Your task to perform on an android device: Search for the best rated mattress topper on Target. Image 0: 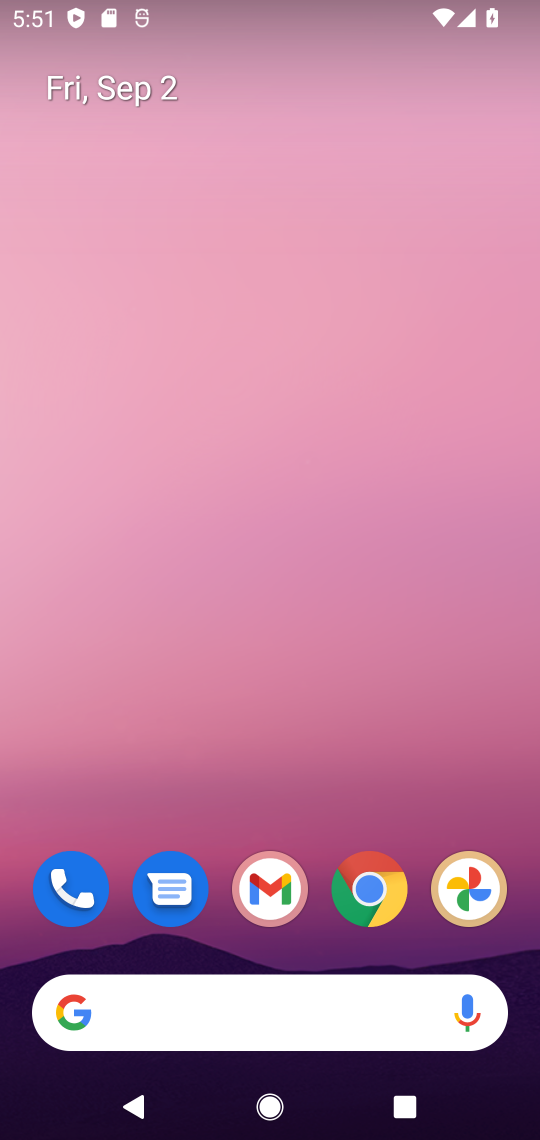
Step 0: click (354, 997)
Your task to perform on an android device: Search for the best rated mattress topper on Target. Image 1: 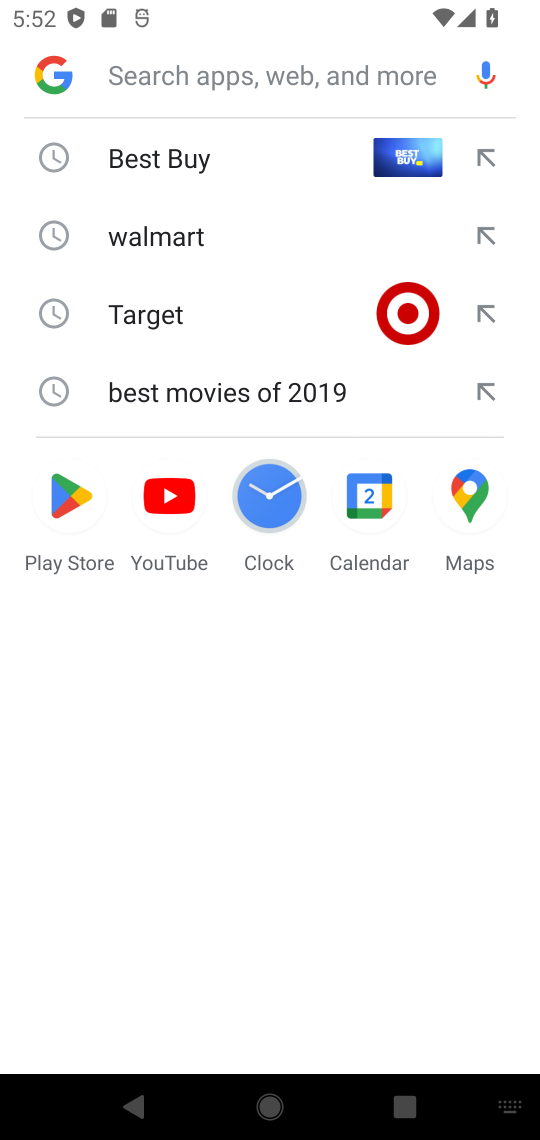
Step 1: click (205, 300)
Your task to perform on an android device: Search for the best rated mattress topper on Target. Image 2: 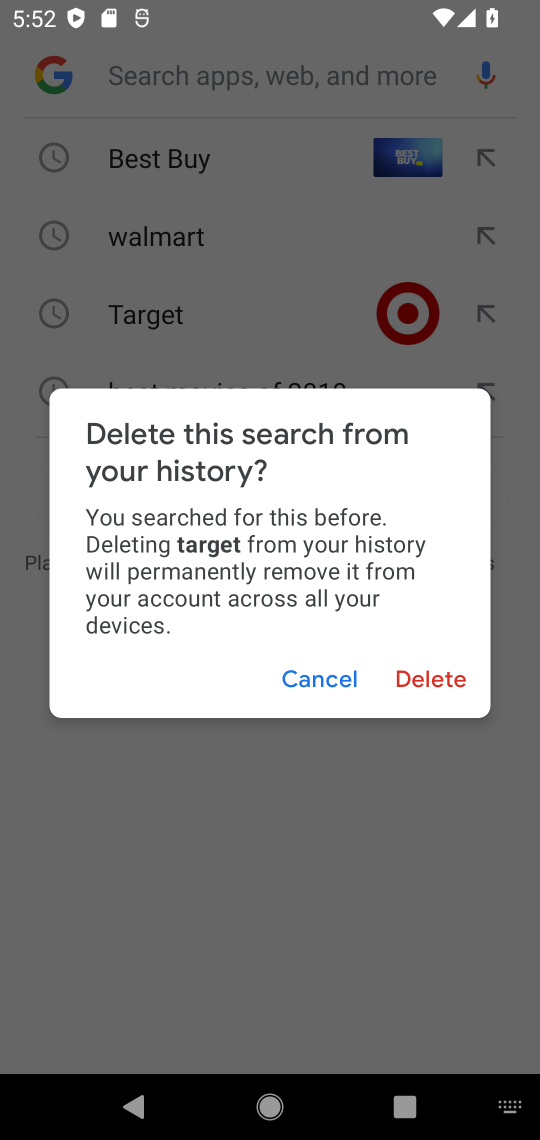
Step 2: click (308, 670)
Your task to perform on an android device: Search for the best rated mattress topper on Target. Image 3: 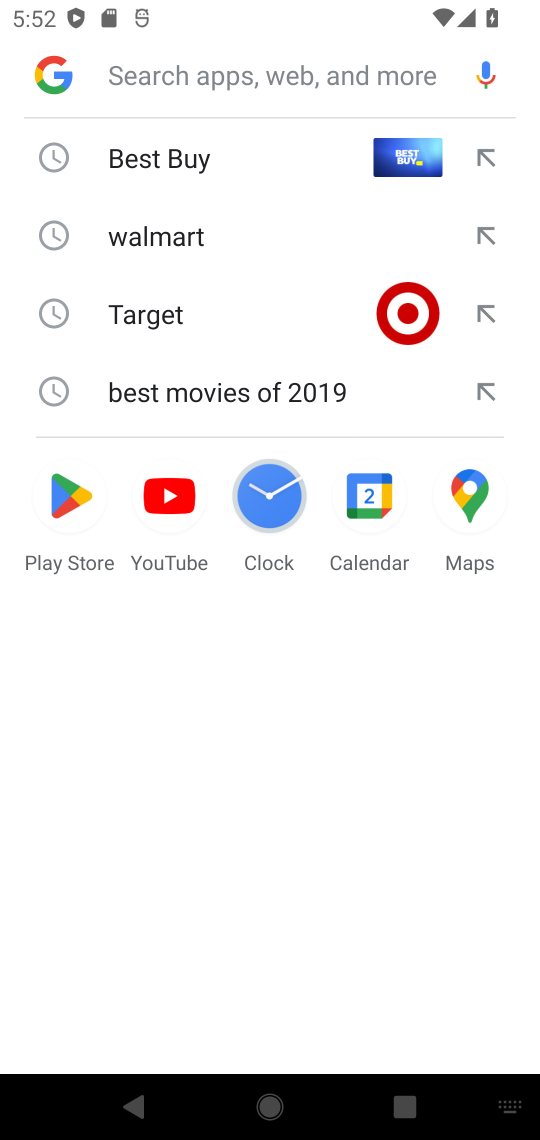
Step 3: click (133, 309)
Your task to perform on an android device: Search for the best rated mattress topper on Target. Image 4: 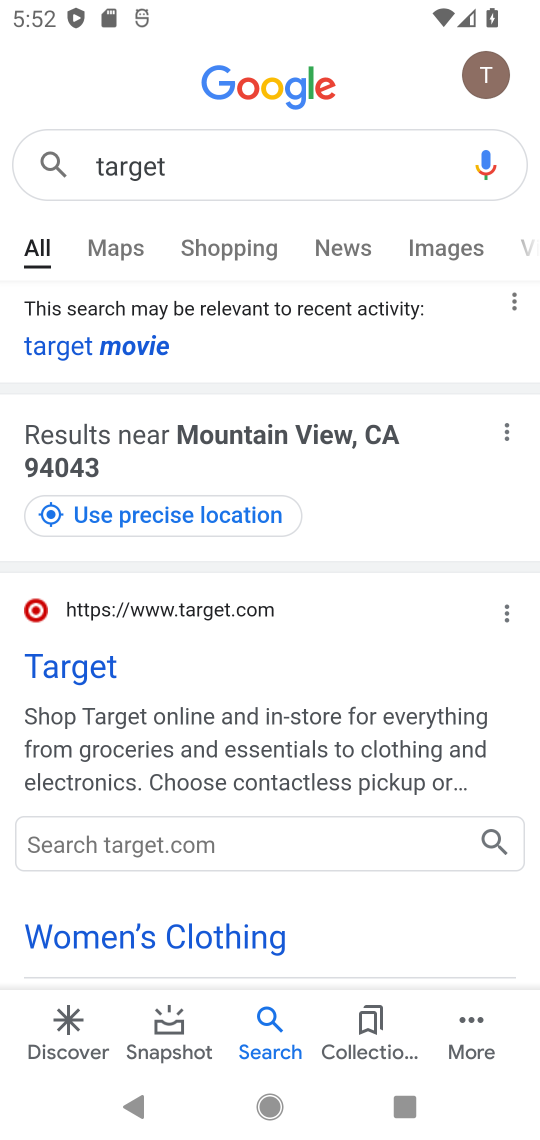
Step 4: click (69, 671)
Your task to perform on an android device: Search for the best rated mattress topper on Target. Image 5: 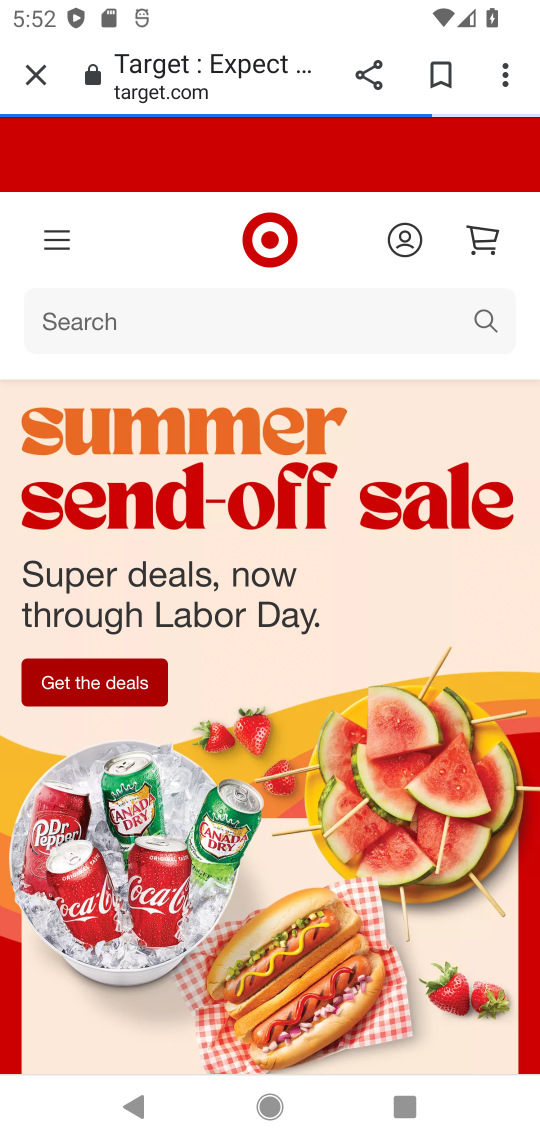
Step 5: click (365, 313)
Your task to perform on an android device: Search for the best rated mattress topper on Target. Image 6: 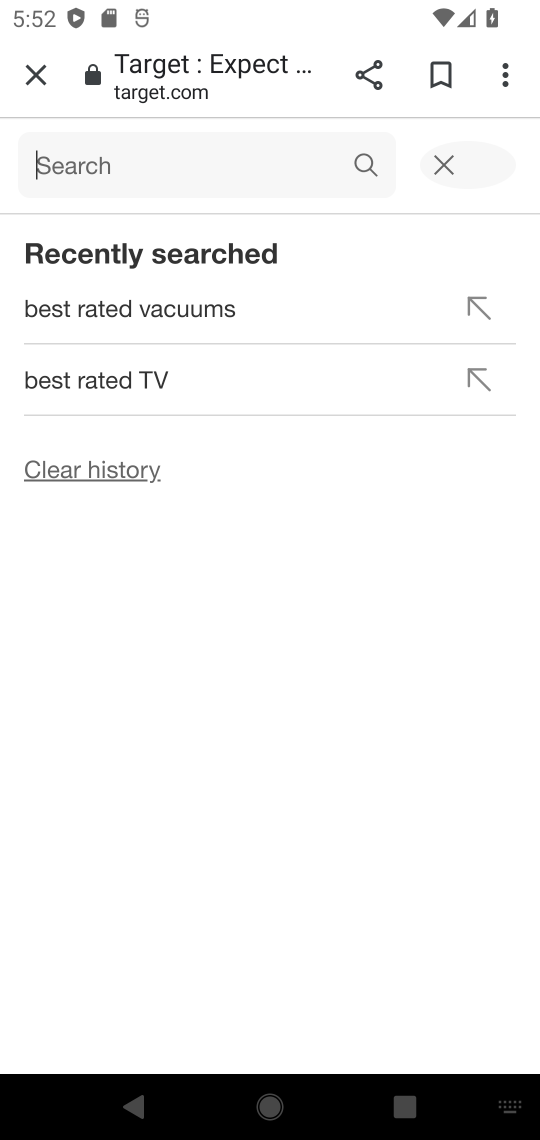
Step 6: type "mattress topper"
Your task to perform on an android device: Search for the best rated mattress topper on Target. Image 7: 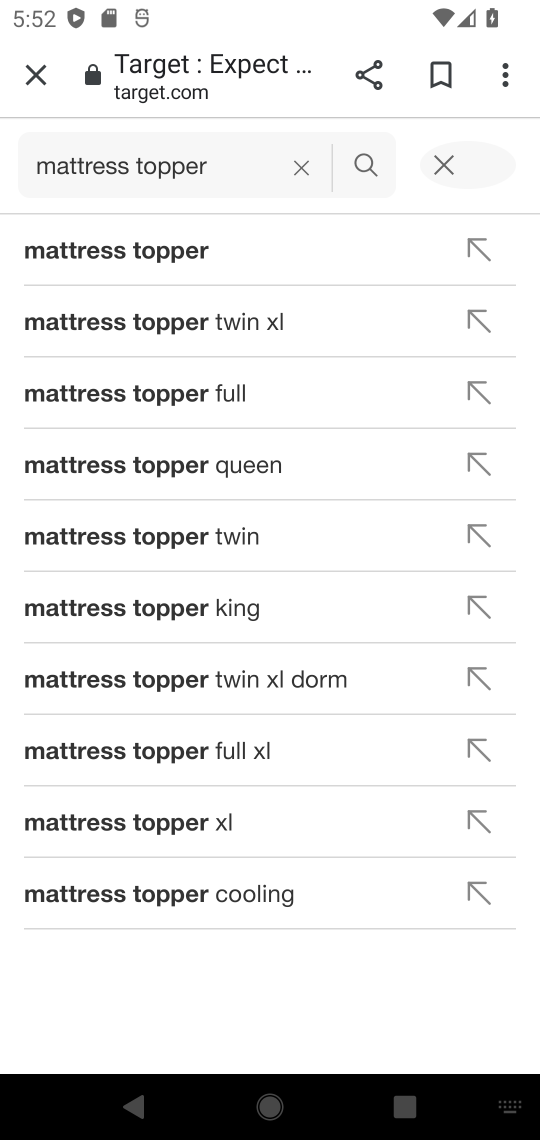
Step 7: click (234, 230)
Your task to perform on an android device: Search for the best rated mattress topper on Target. Image 8: 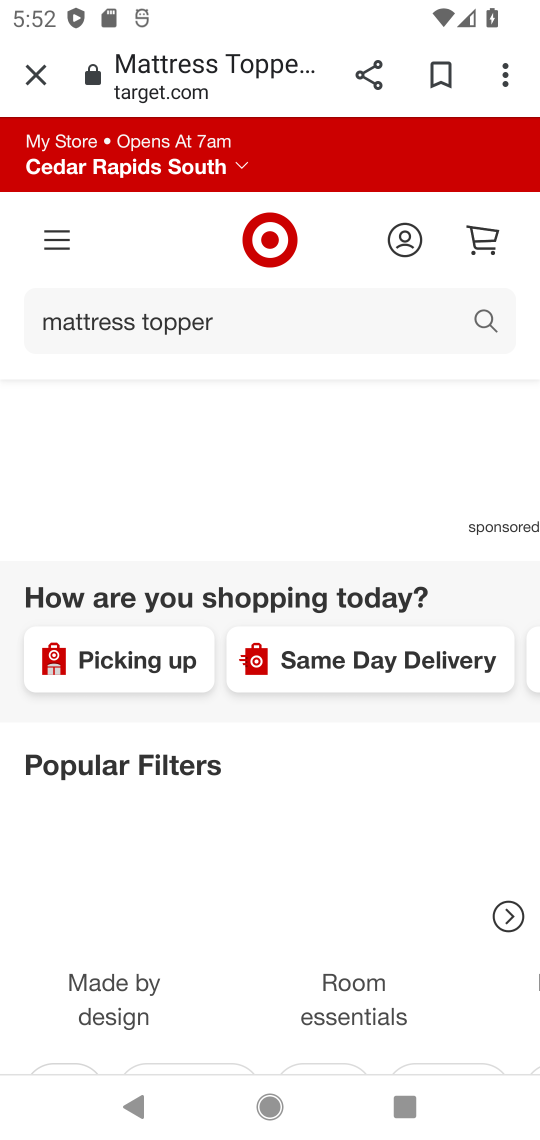
Step 8: drag from (325, 796) to (375, 436)
Your task to perform on an android device: Search for the best rated mattress topper on Target. Image 9: 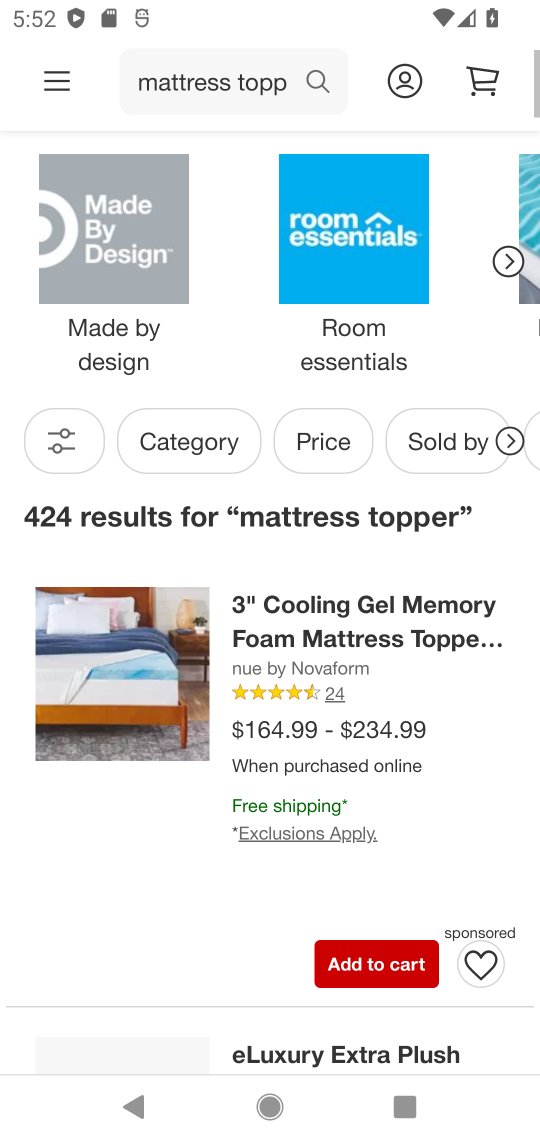
Step 9: drag from (341, 882) to (392, 588)
Your task to perform on an android device: Search for the best rated mattress topper on Target. Image 10: 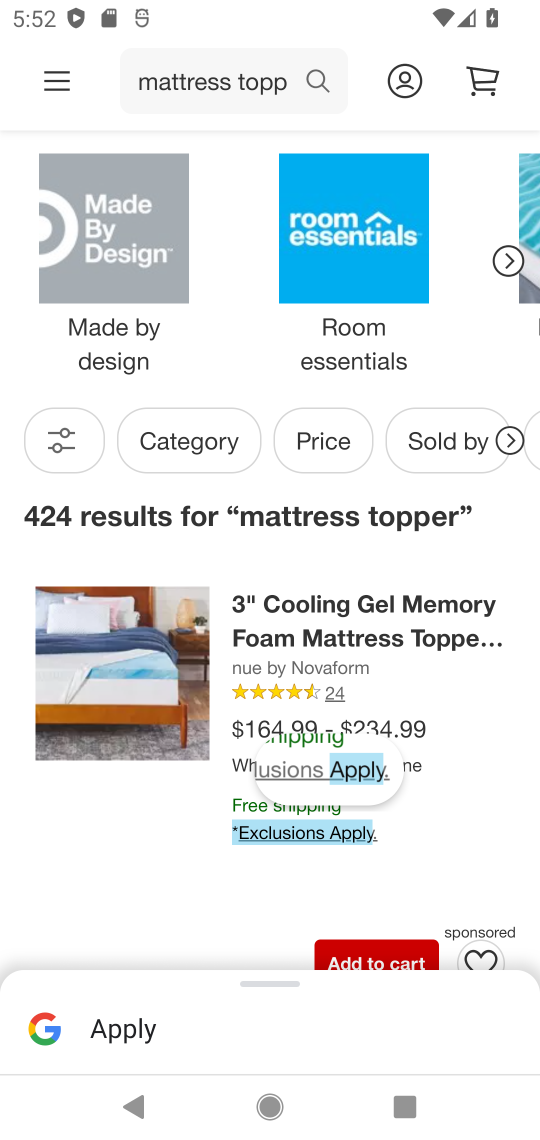
Step 10: drag from (355, 731) to (397, 523)
Your task to perform on an android device: Search for the best rated mattress topper on Target. Image 11: 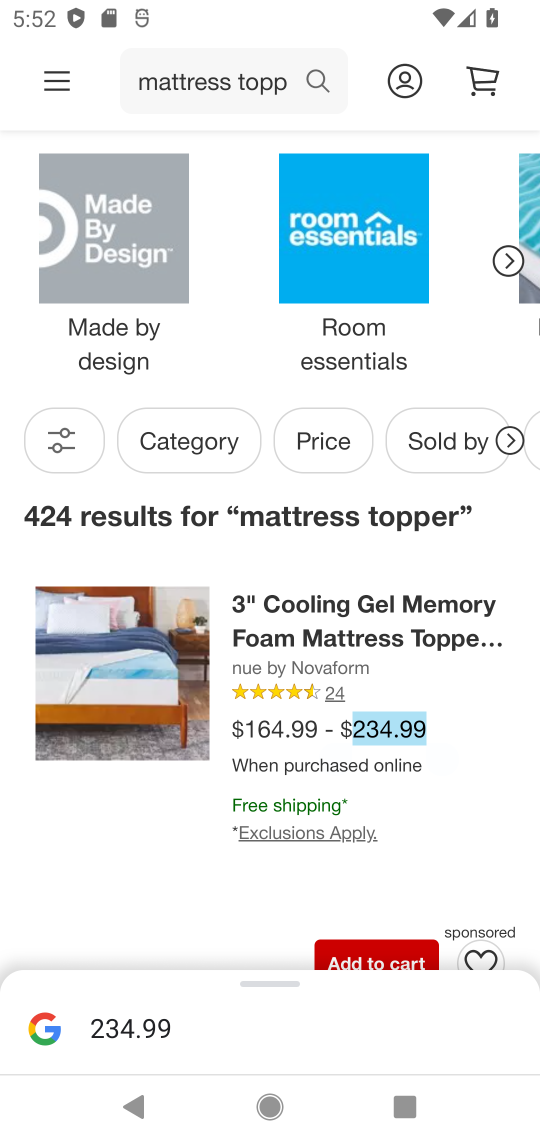
Step 11: drag from (402, 848) to (503, 603)
Your task to perform on an android device: Search for the best rated mattress topper on Target. Image 12: 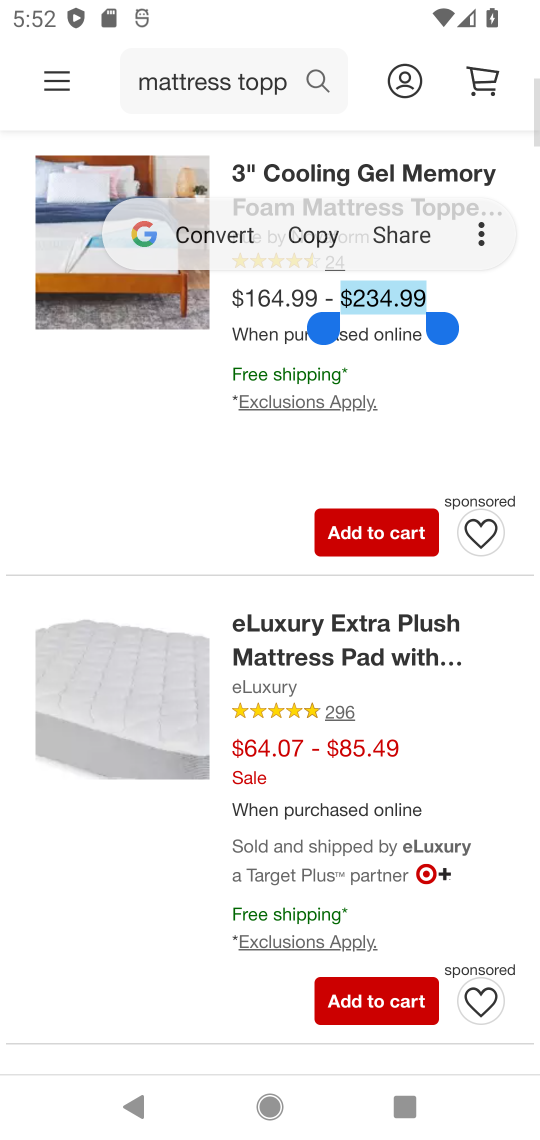
Step 12: click (224, 542)
Your task to perform on an android device: Search for the best rated mattress topper on Target. Image 13: 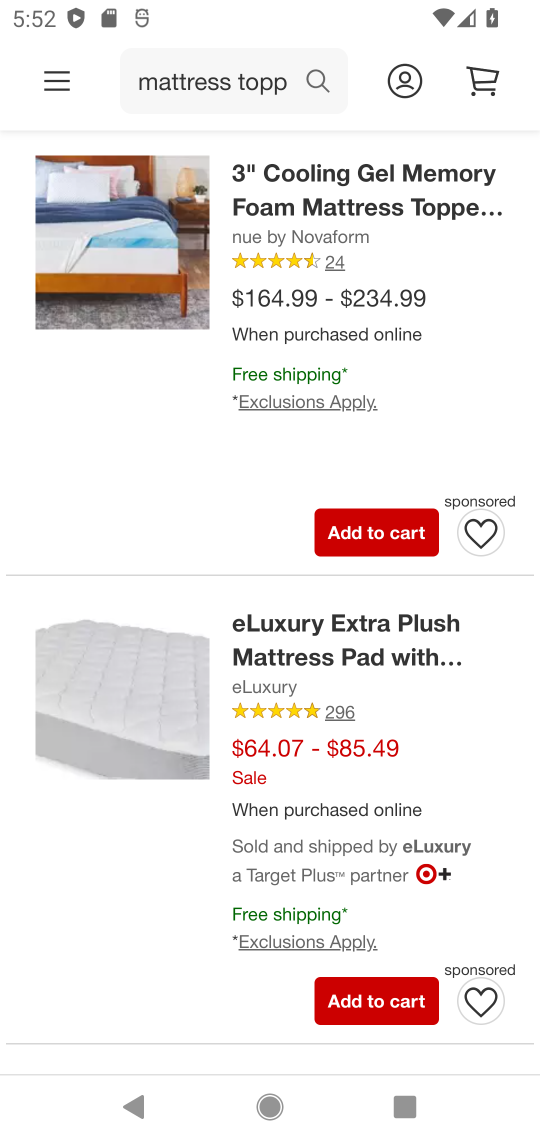
Step 13: task complete